Your task to perform on an android device: Who is the prime minister of Canada? Image 0: 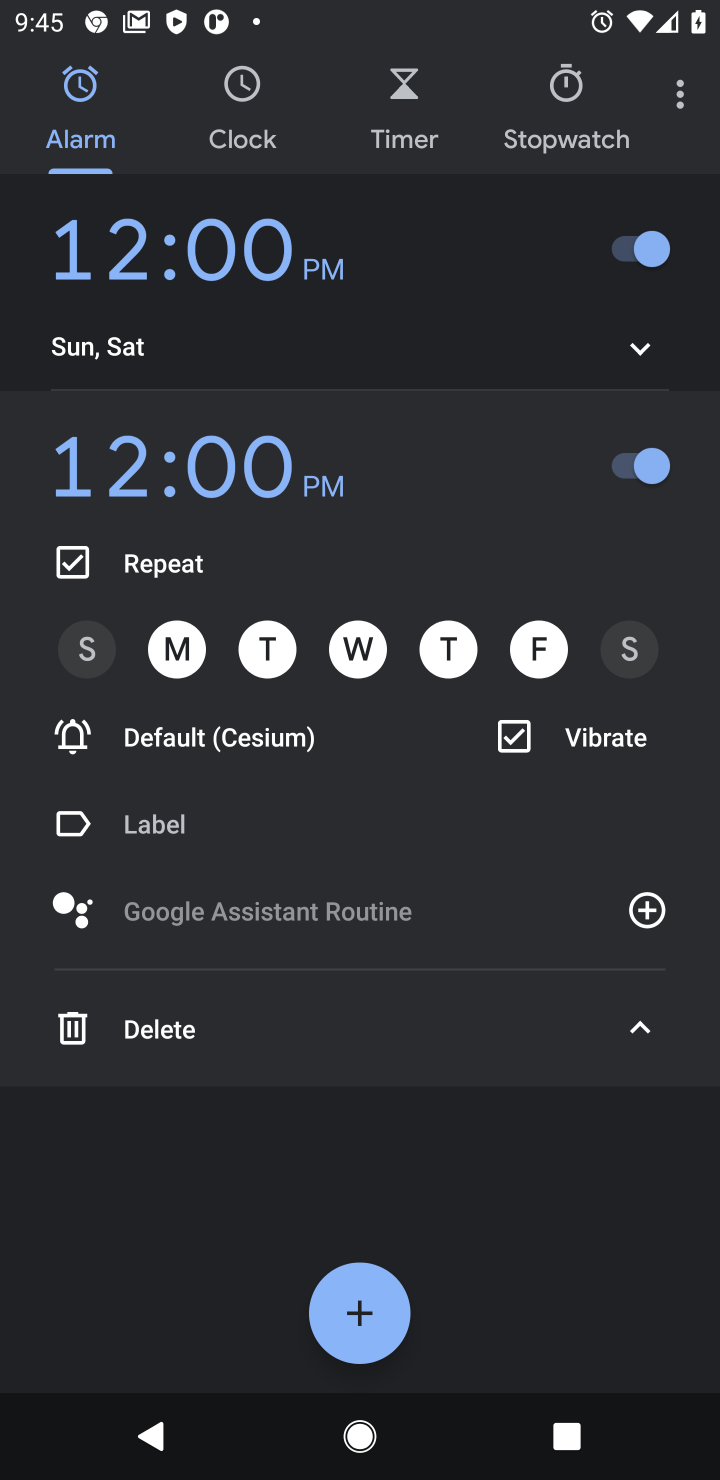
Step 0: press home button
Your task to perform on an android device: Who is the prime minister of Canada? Image 1: 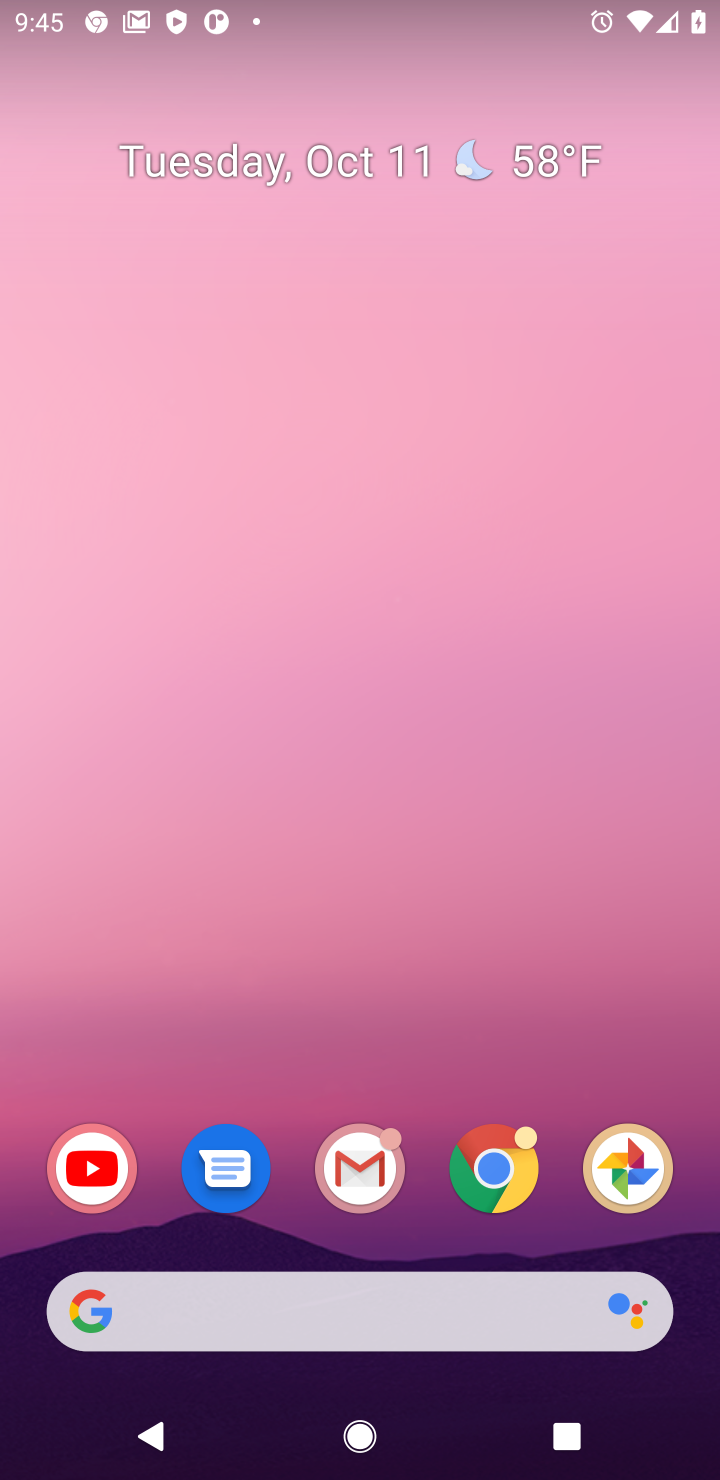
Step 1: click (513, 1174)
Your task to perform on an android device: Who is the prime minister of Canada? Image 2: 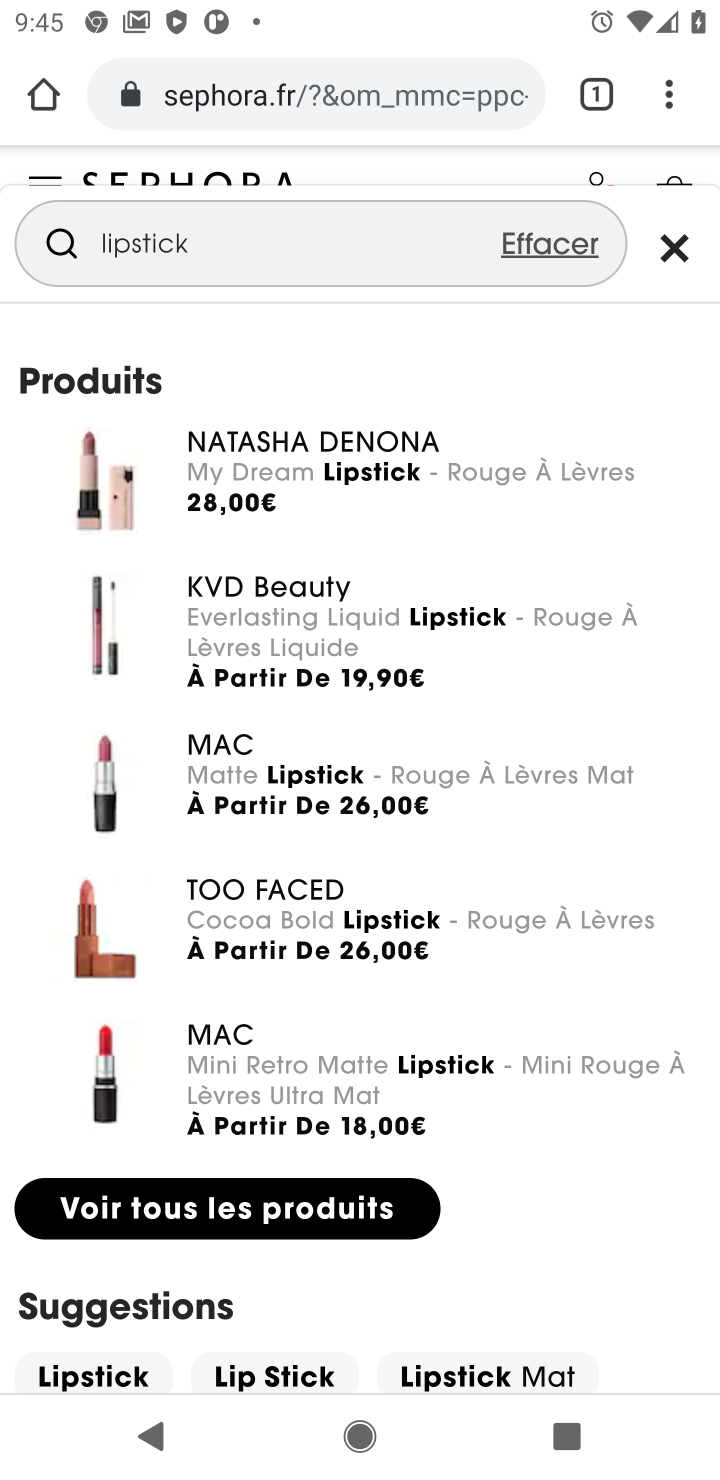
Step 2: click (356, 89)
Your task to perform on an android device: Who is the prime minister of Canada? Image 3: 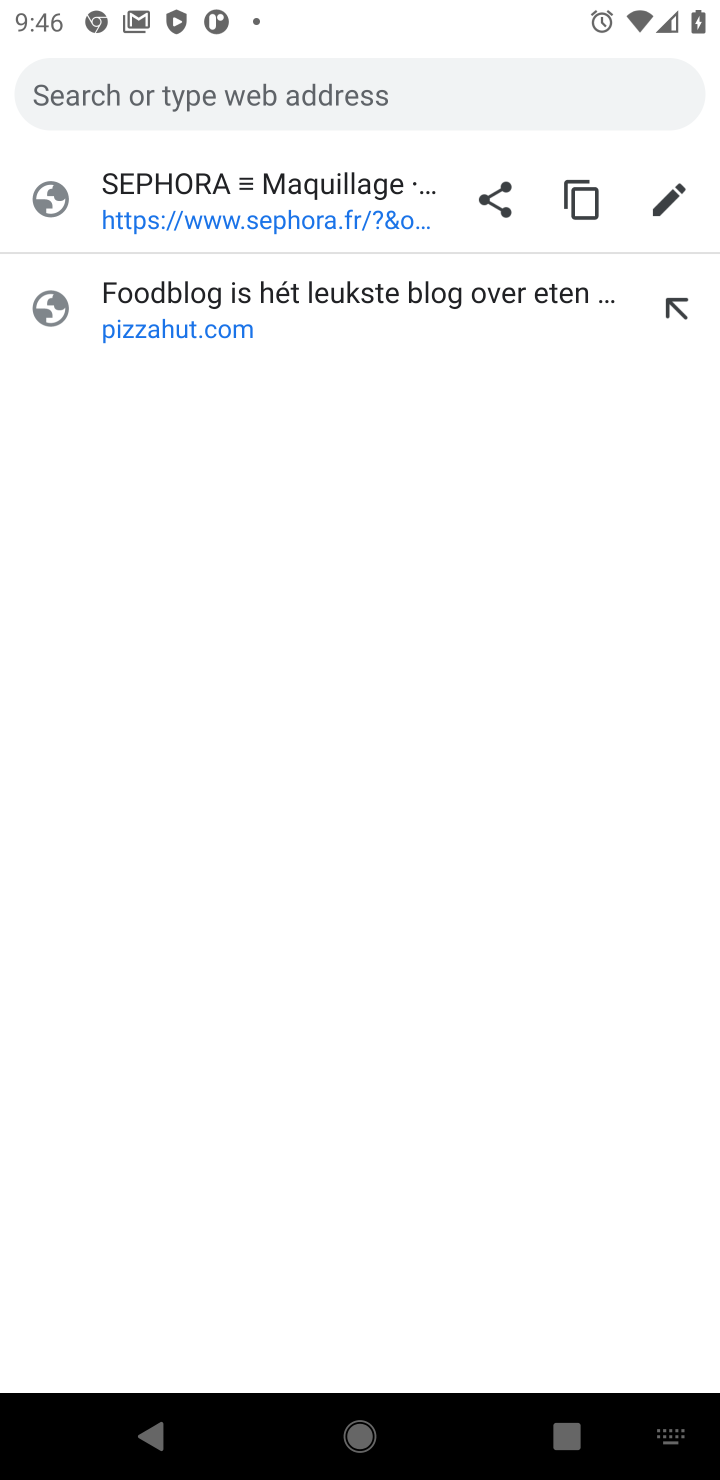
Step 3: type "prime minister of canada"
Your task to perform on an android device: Who is the prime minister of Canada? Image 4: 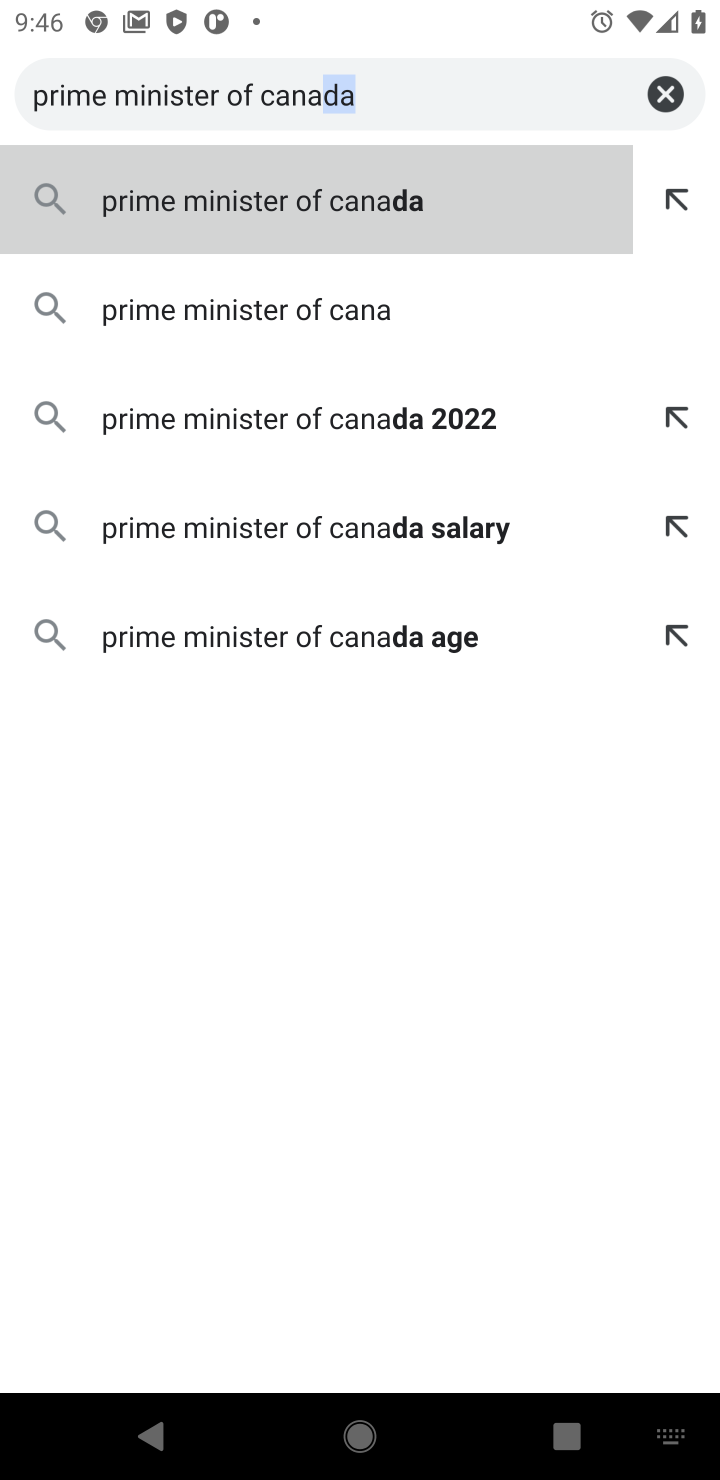
Step 4: click (389, 411)
Your task to perform on an android device: Who is the prime minister of Canada? Image 5: 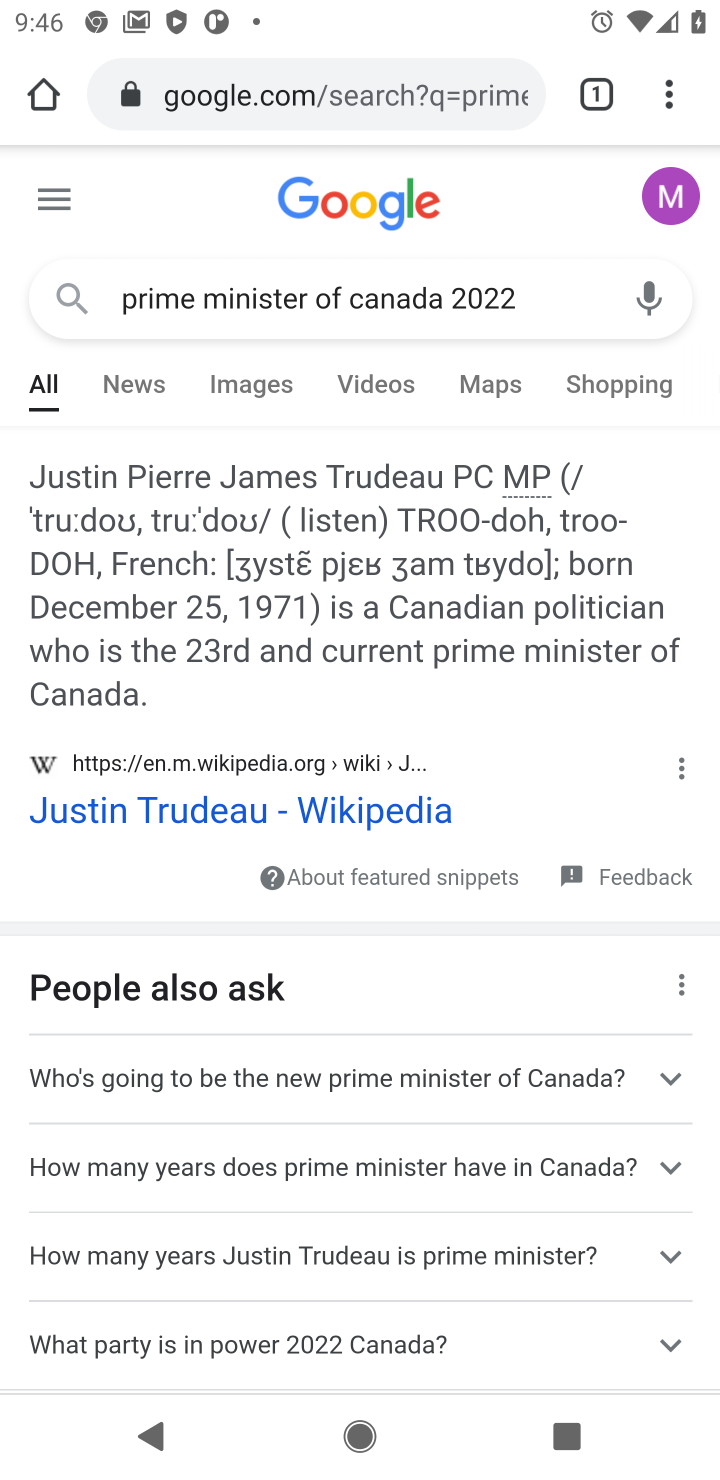
Step 5: drag from (252, 1284) to (413, 545)
Your task to perform on an android device: Who is the prime minister of Canada? Image 6: 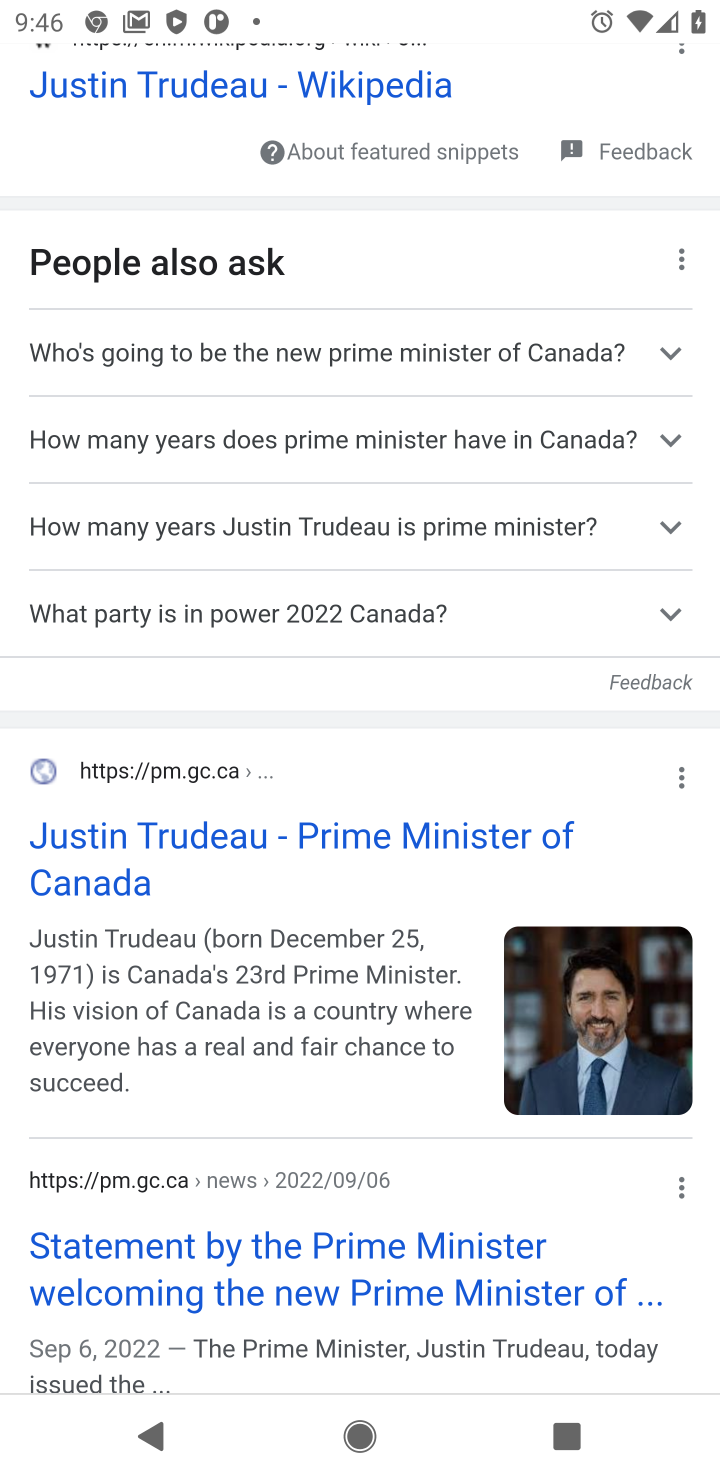
Step 6: click (430, 828)
Your task to perform on an android device: Who is the prime minister of Canada? Image 7: 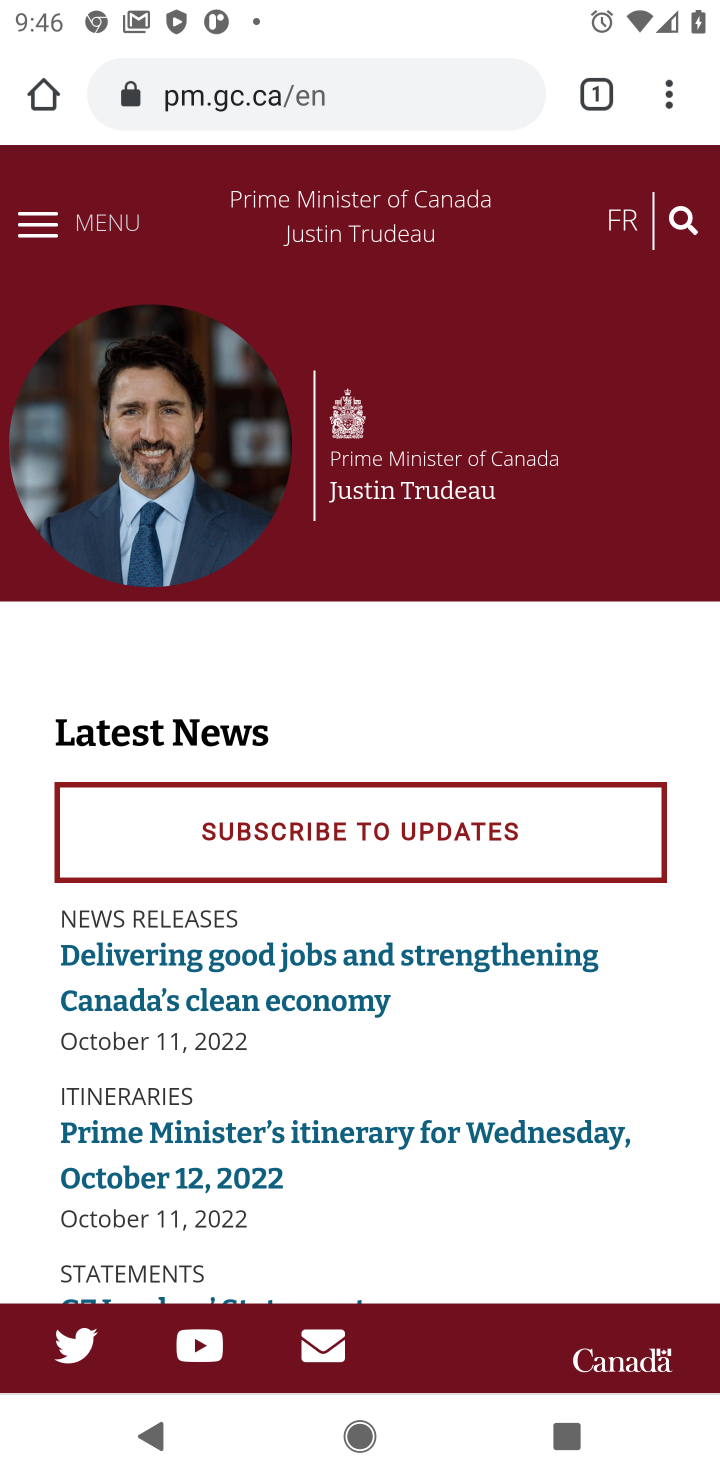
Step 7: task complete